Your task to perform on an android device: clear history in the chrome app Image 0: 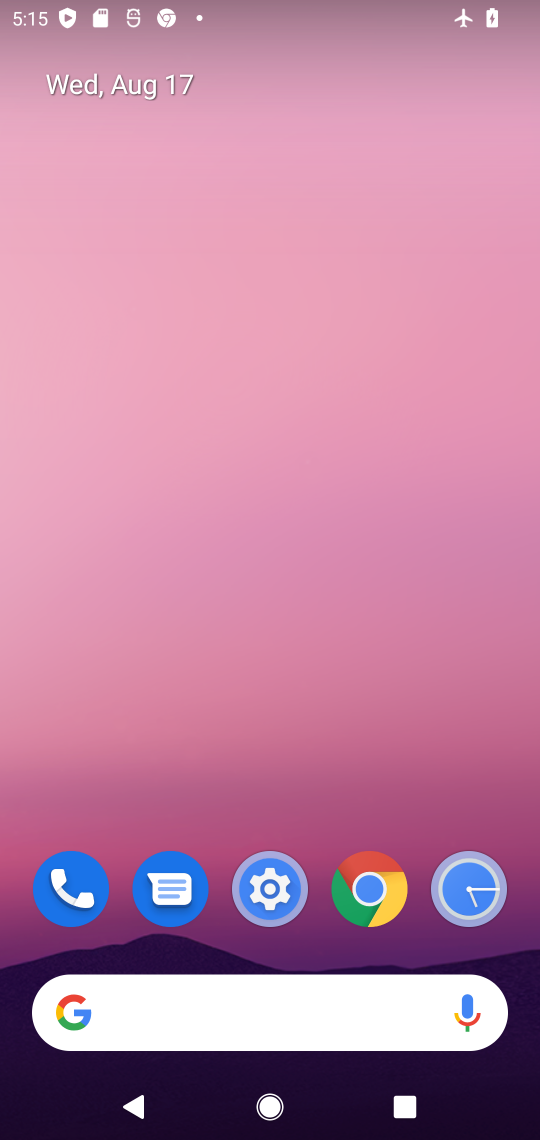
Step 0: click (371, 890)
Your task to perform on an android device: clear history in the chrome app Image 1: 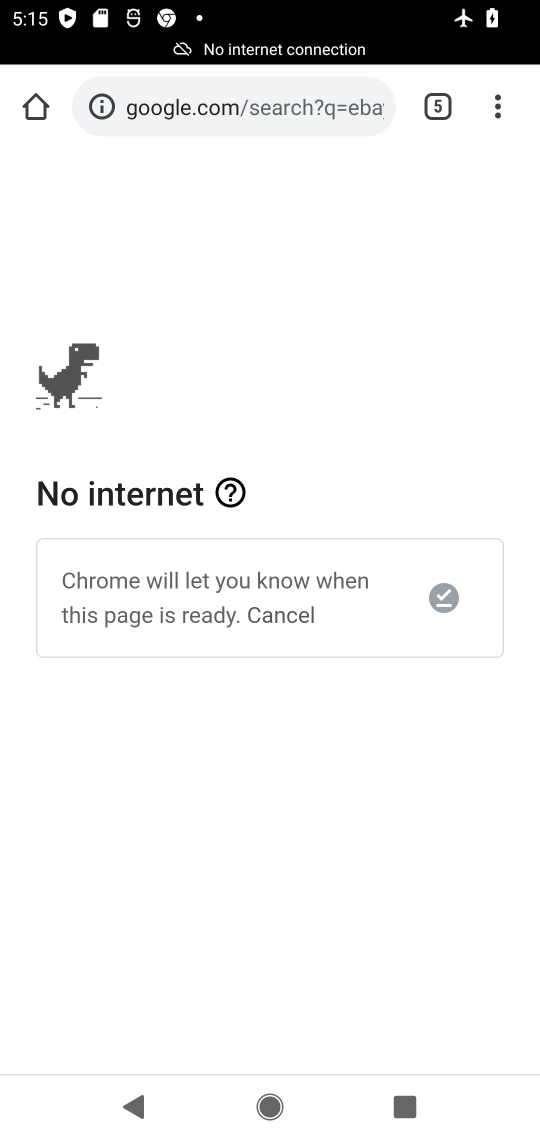
Step 1: click (495, 93)
Your task to perform on an android device: clear history in the chrome app Image 2: 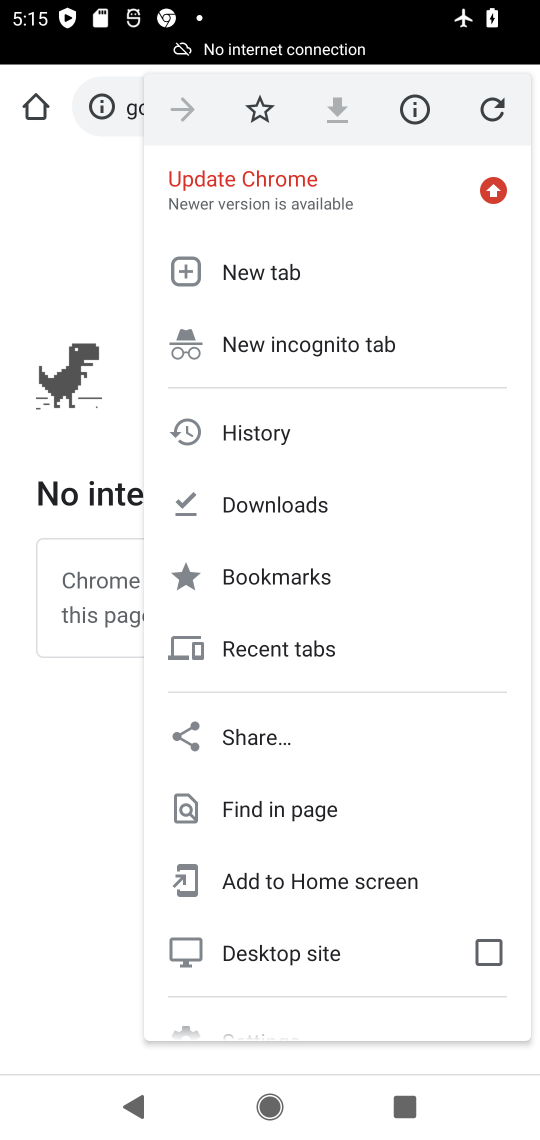
Step 2: click (246, 437)
Your task to perform on an android device: clear history in the chrome app Image 3: 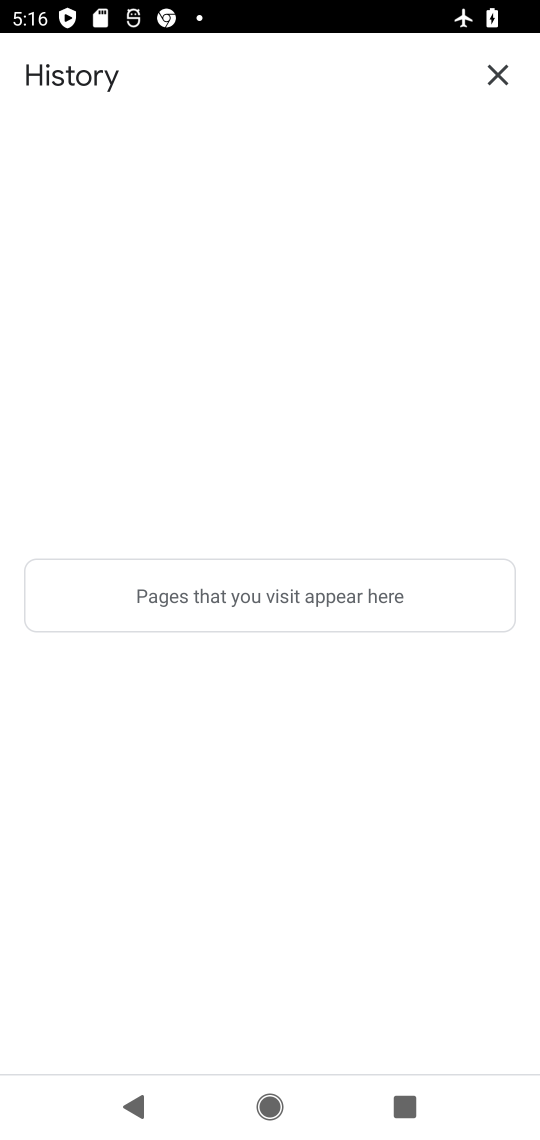
Step 3: task complete